Your task to perform on an android device: Go to Amazon Image 0: 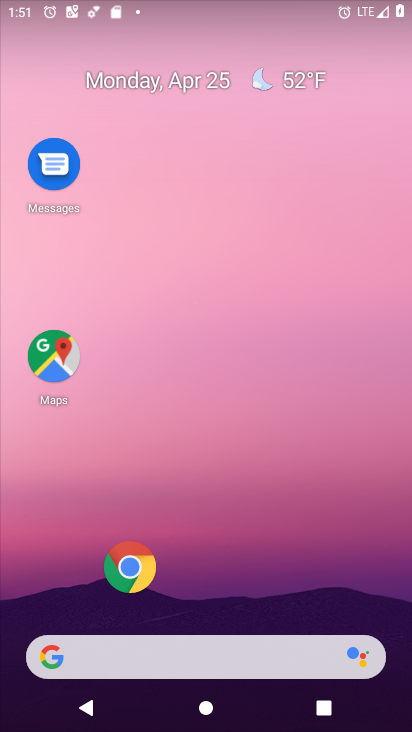
Step 0: click (124, 586)
Your task to perform on an android device: Go to Amazon Image 1: 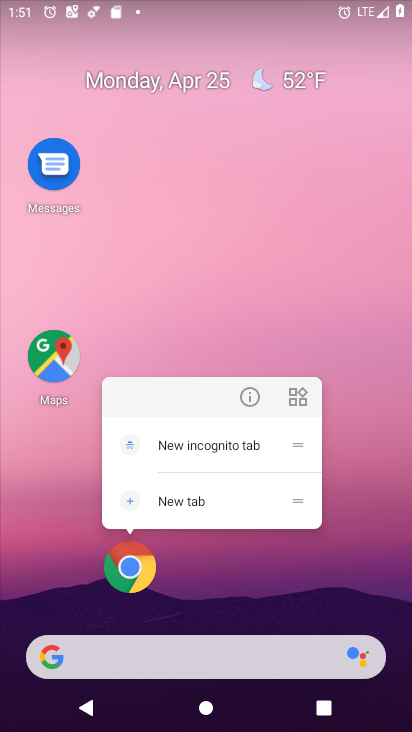
Step 1: click (136, 581)
Your task to perform on an android device: Go to Amazon Image 2: 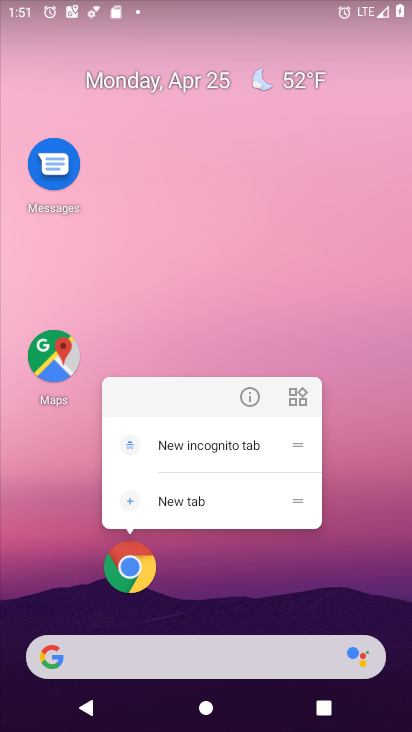
Step 2: click (143, 573)
Your task to perform on an android device: Go to Amazon Image 3: 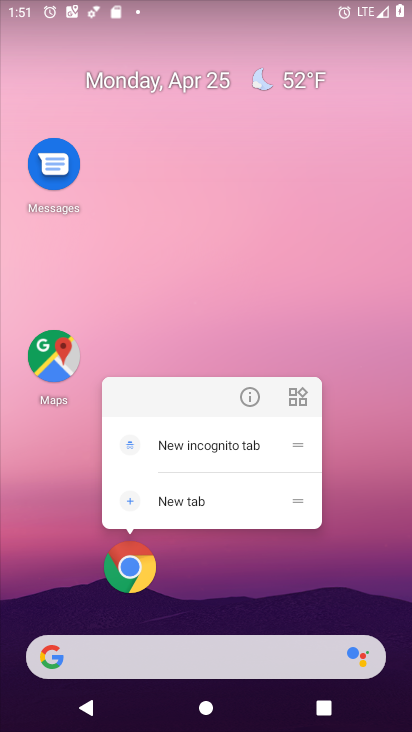
Step 3: click (131, 579)
Your task to perform on an android device: Go to Amazon Image 4: 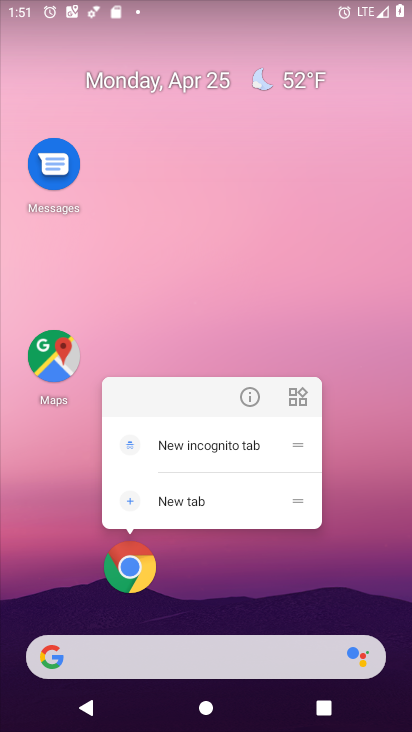
Step 4: click (135, 584)
Your task to perform on an android device: Go to Amazon Image 5: 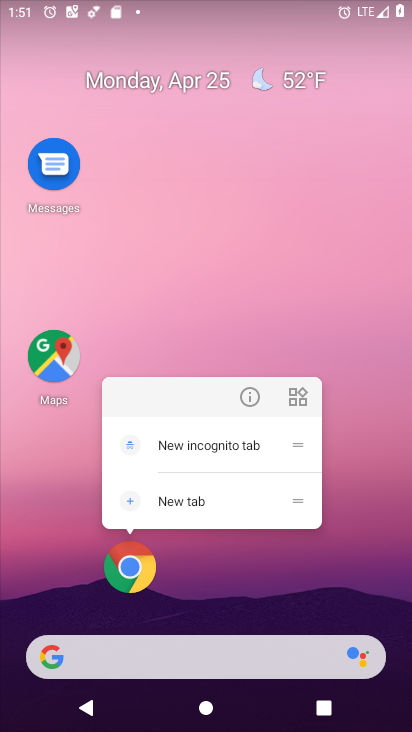
Step 5: click (136, 584)
Your task to perform on an android device: Go to Amazon Image 6: 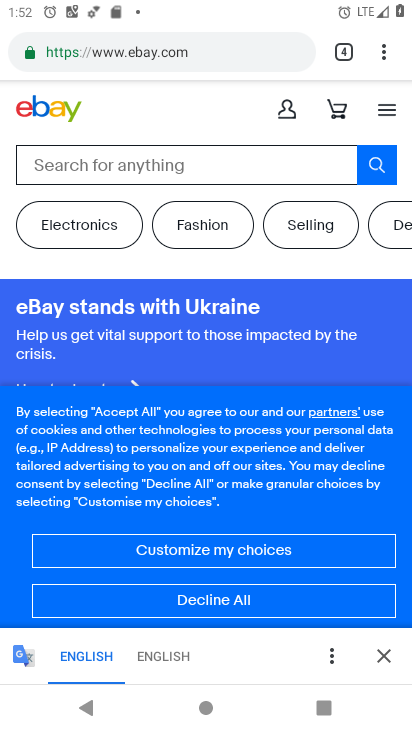
Step 6: click (243, 56)
Your task to perform on an android device: Go to Amazon Image 7: 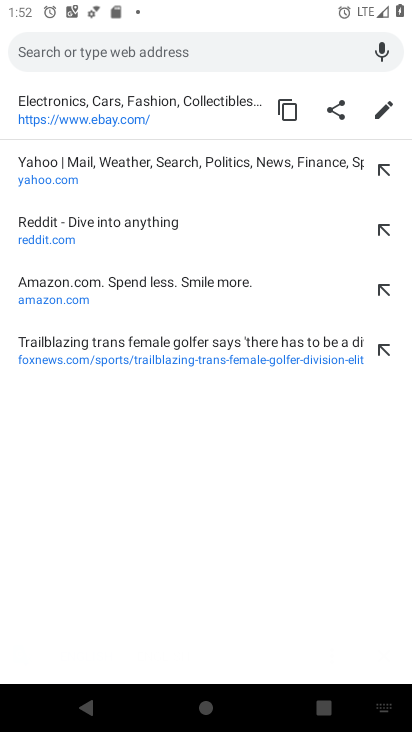
Step 7: click (197, 299)
Your task to perform on an android device: Go to Amazon Image 8: 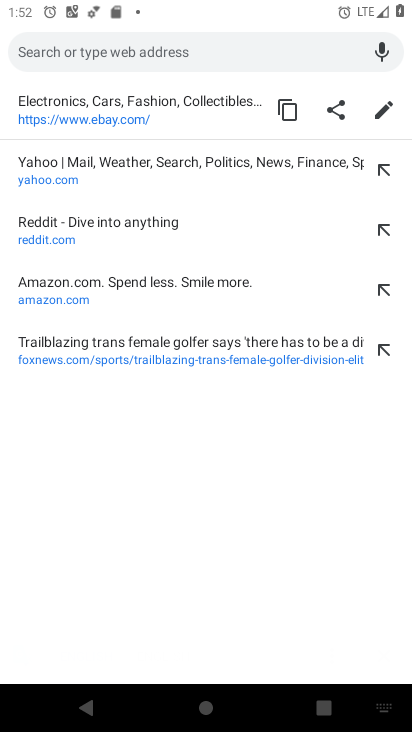
Step 8: click (138, 285)
Your task to perform on an android device: Go to Amazon Image 9: 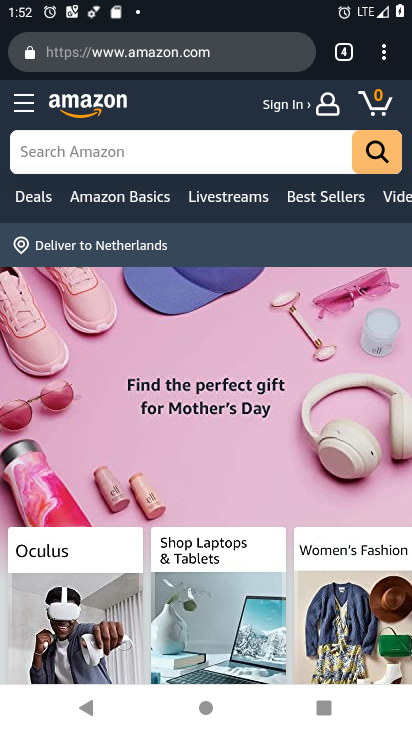
Step 9: task complete